Your task to perform on an android device: Open battery settings Image 0: 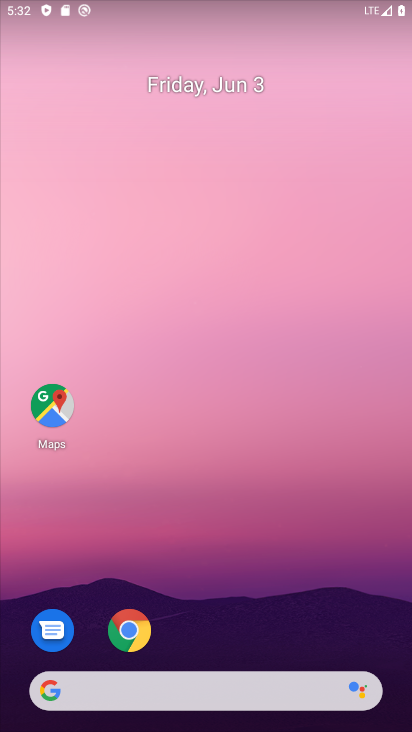
Step 0: drag from (314, 5) to (370, 417)
Your task to perform on an android device: Open battery settings Image 1: 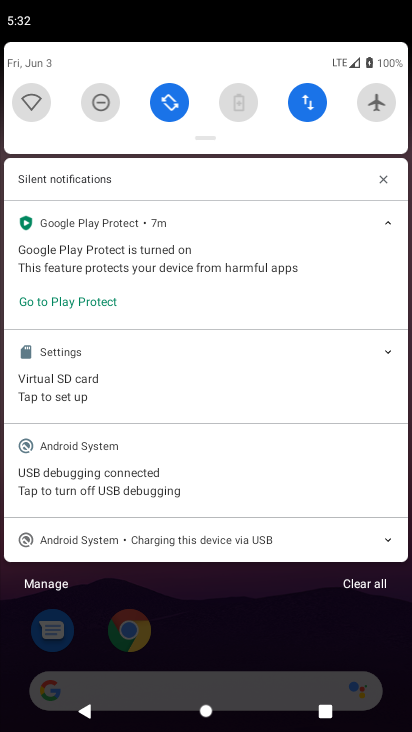
Step 1: click (247, 116)
Your task to perform on an android device: Open battery settings Image 2: 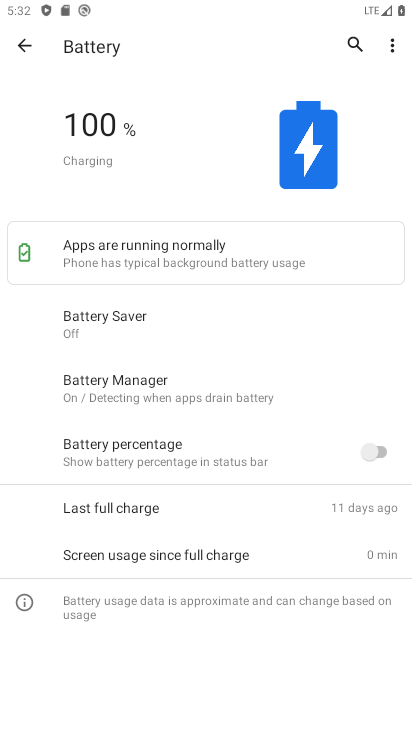
Step 2: task complete